Your task to perform on an android device: Open the Play Movies app and select the watchlist tab. Image 0: 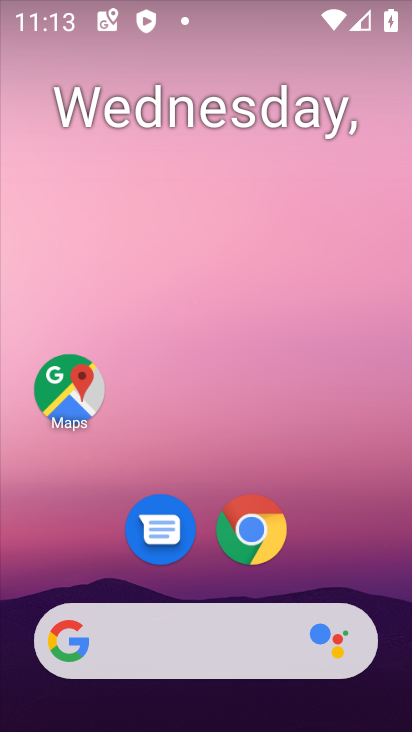
Step 0: drag from (200, 609) to (155, 21)
Your task to perform on an android device: Open the Play Movies app and select the watchlist tab. Image 1: 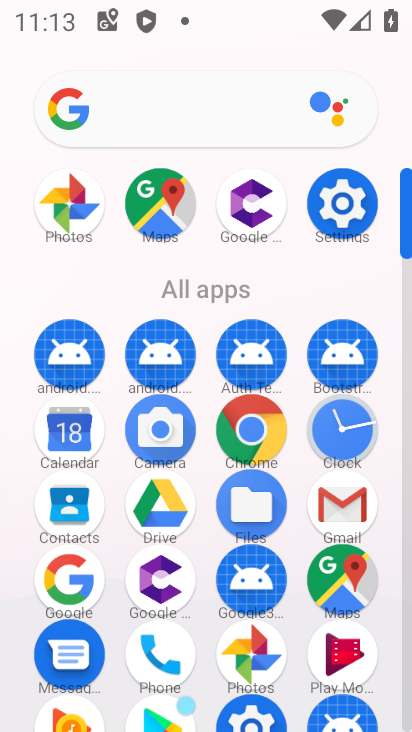
Step 1: click (352, 654)
Your task to perform on an android device: Open the Play Movies app and select the watchlist tab. Image 2: 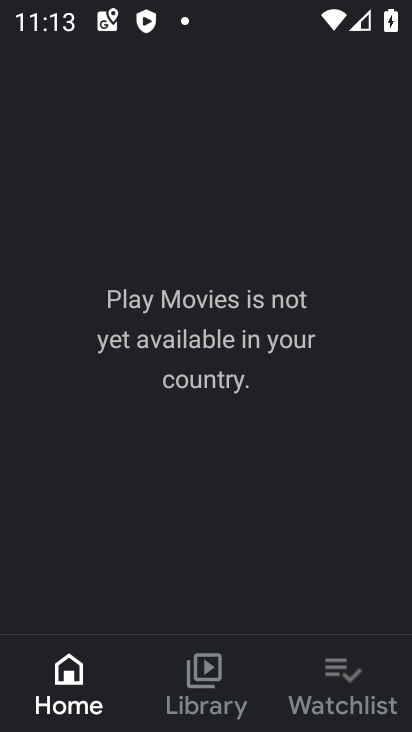
Step 2: click (334, 675)
Your task to perform on an android device: Open the Play Movies app and select the watchlist tab. Image 3: 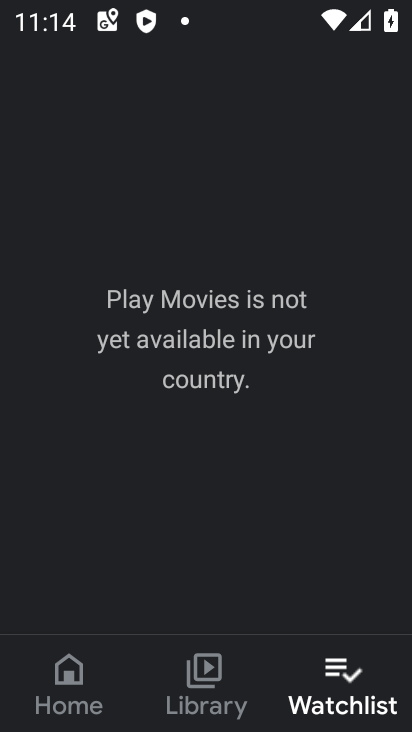
Step 3: task complete